Your task to perform on an android device: Go to eBay Image 0: 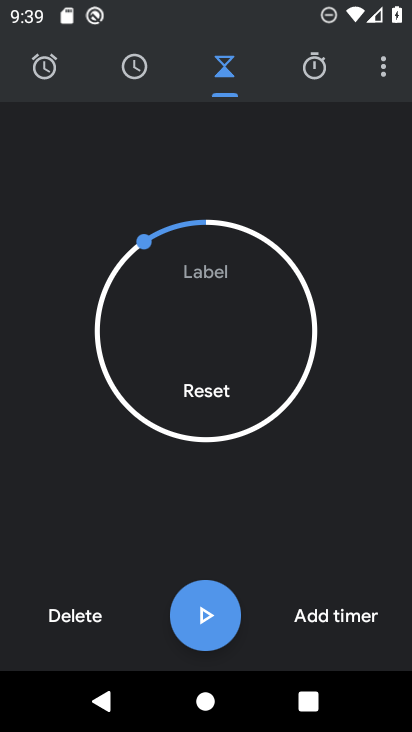
Step 0: press home button
Your task to perform on an android device: Go to eBay Image 1: 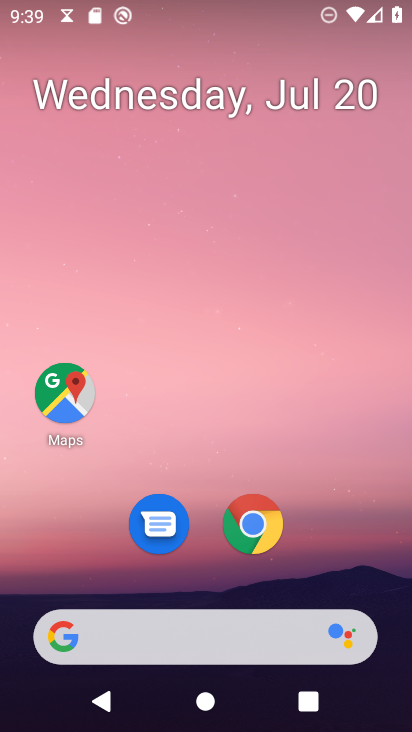
Step 1: click (255, 529)
Your task to perform on an android device: Go to eBay Image 2: 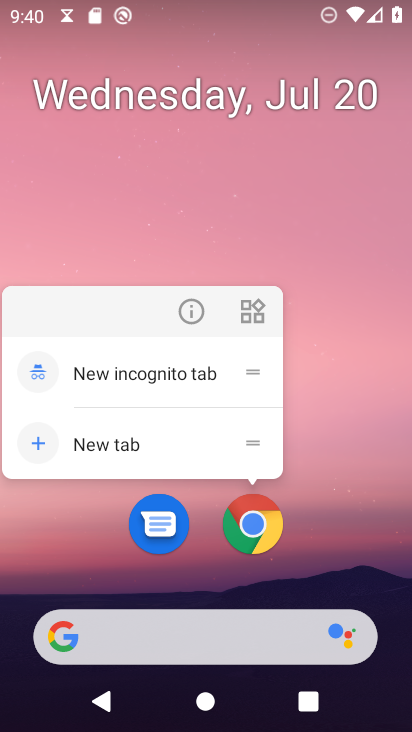
Step 2: click (256, 528)
Your task to perform on an android device: Go to eBay Image 3: 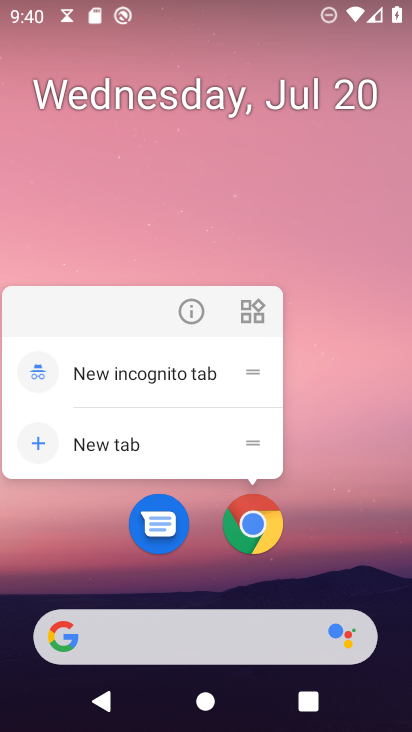
Step 3: click (256, 527)
Your task to perform on an android device: Go to eBay Image 4: 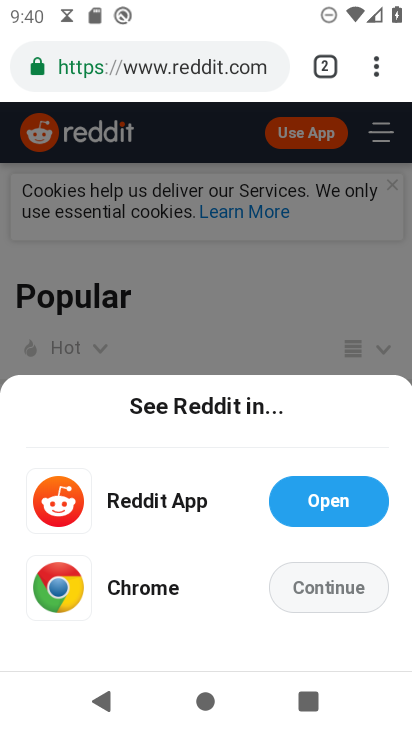
Step 4: drag from (380, 67) to (268, 140)
Your task to perform on an android device: Go to eBay Image 5: 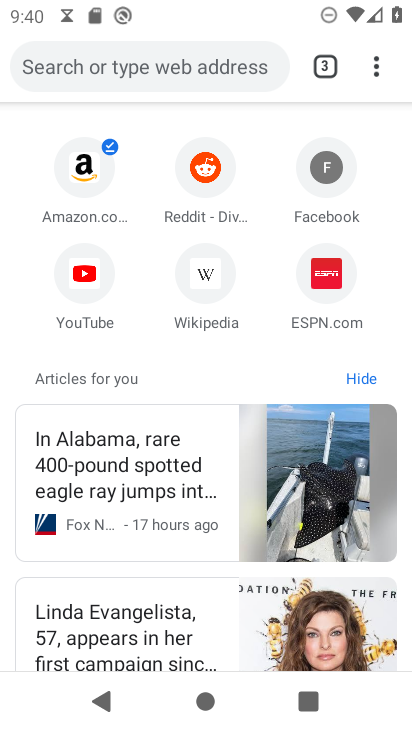
Step 5: click (124, 62)
Your task to perform on an android device: Go to eBay Image 6: 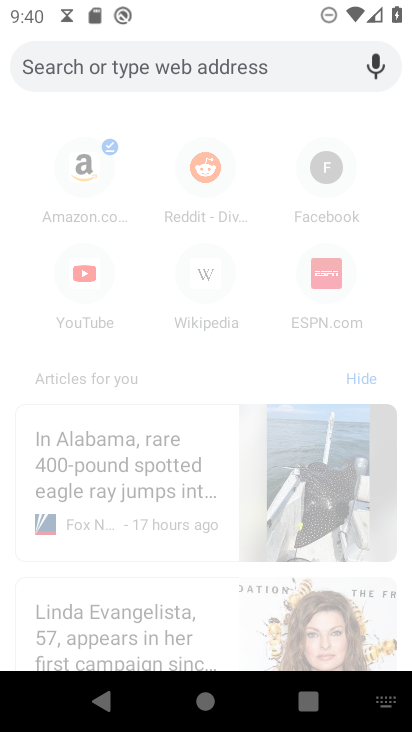
Step 6: type "ebay"
Your task to perform on an android device: Go to eBay Image 7: 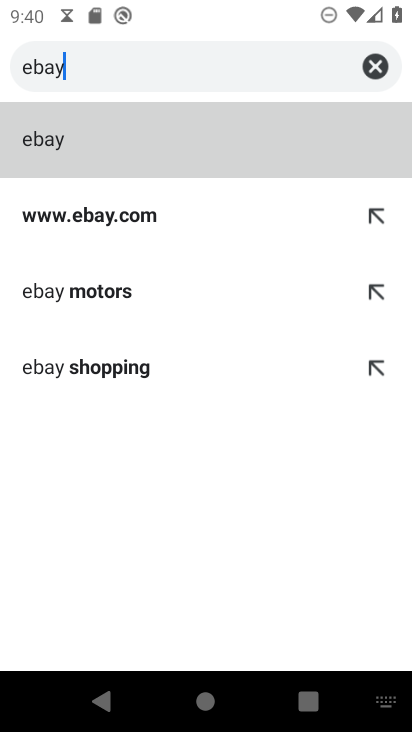
Step 7: click (38, 131)
Your task to perform on an android device: Go to eBay Image 8: 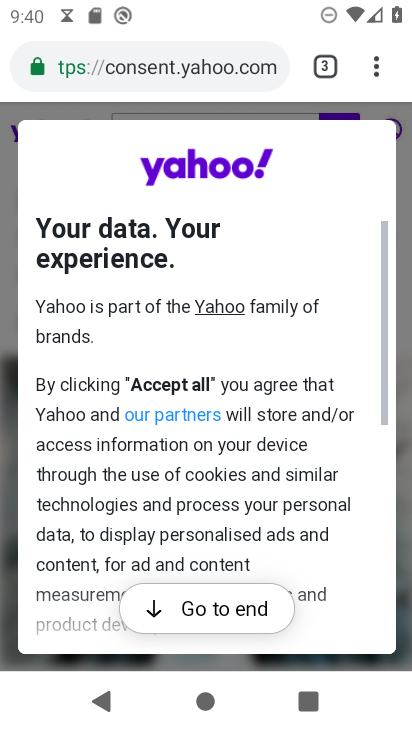
Step 8: click (219, 610)
Your task to perform on an android device: Go to eBay Image 9: 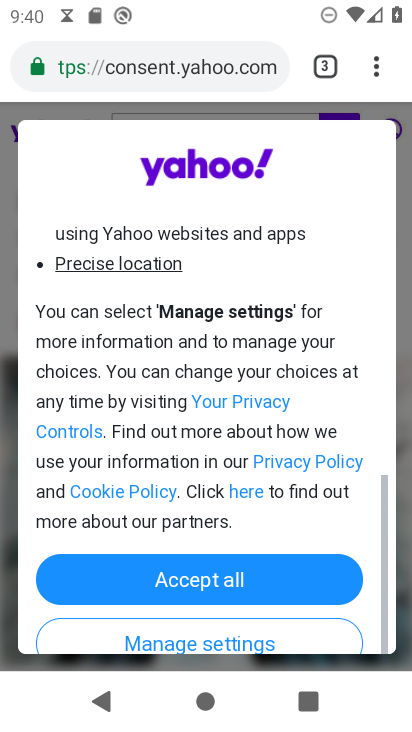
Step 9: click (214, 575)
Your task to perform on an android device: Go to eBay Image 10: 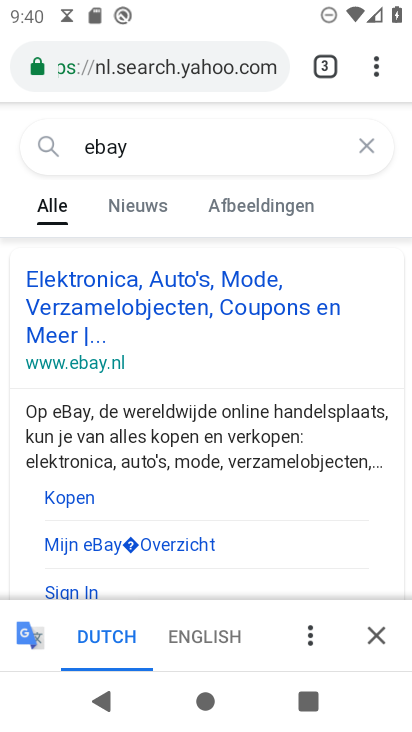
Step 10: click (197, 630)
Your task to perform on an android device: Go to eBay Image 11: 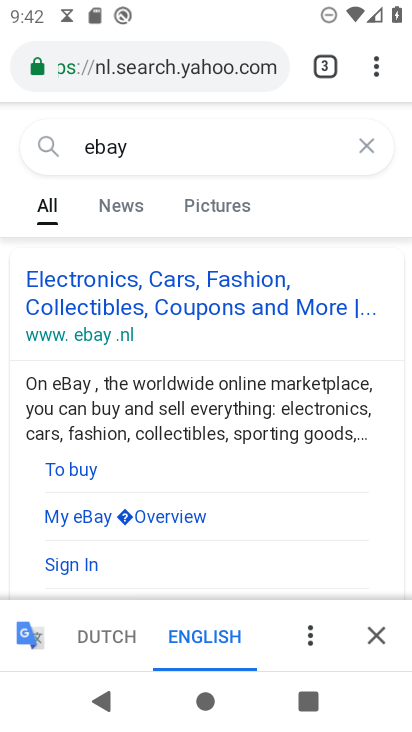
Step 11: click (192, 296)
Your task to perform on an android device: Go to eBay Image 12: 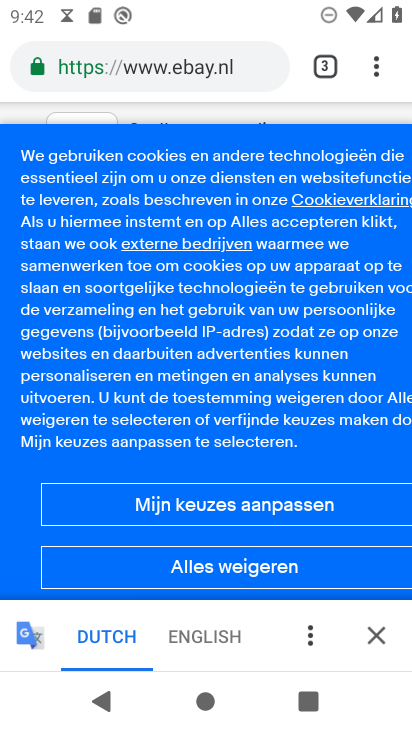
Step 12: click (222, 645)
Your task to perform on an android device: Go to eBay Image 13: 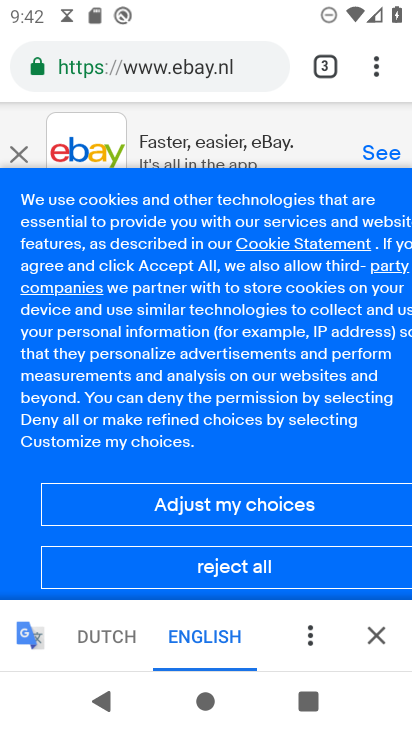
Step 13: task complete